Your task to perform on an android device: Turn on the flashlight Image 0: 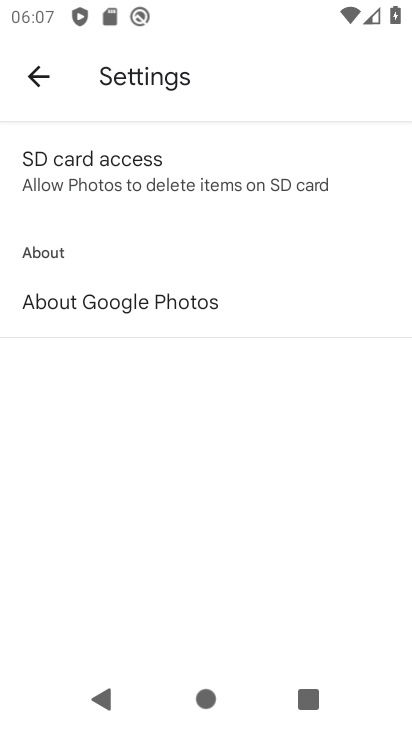
Step 0: press home button
Your task to perform on an android device: Turn on the flashlight Image 1: 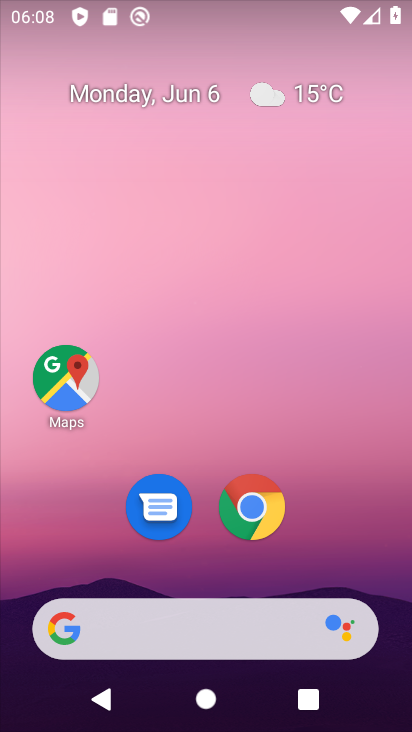
Step 1: drag from (218, 572) to (261, 2)
Your task to perform on an android device: Turn on the flashlight Image 2: 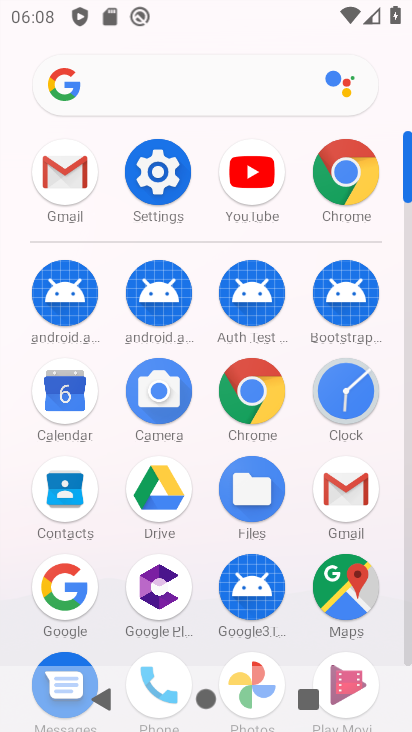
Step 2: click (160, 166)
Your task to perform on an android device: Turn on the flashlight Image 3: 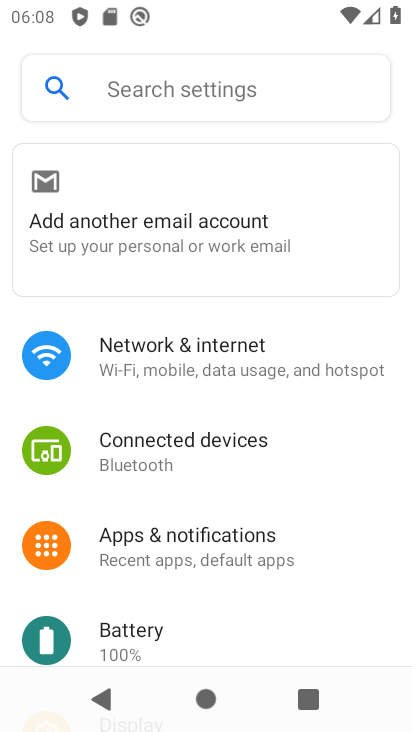
Step 3: task complete